Your task to perform on an android device: Go to Google maps Image 0: 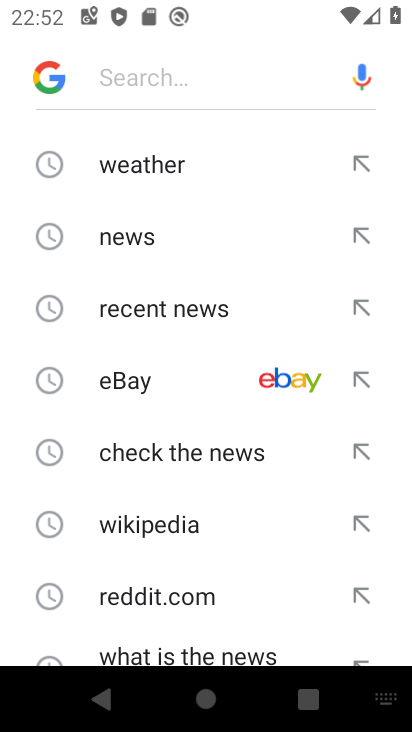
Step 0: press home button
Your task to perform on an android device: Go to Google maps Image 1: 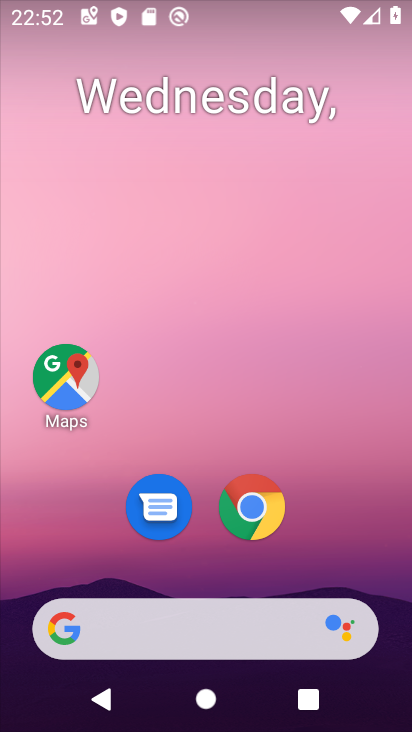
Step 1: click (263, 505)
Your task to perform on an android device: Go to Google maps Image 2: 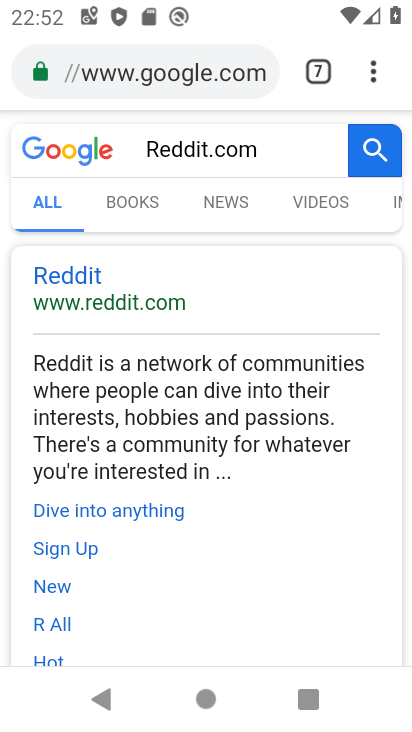
Step 2: press home button
Your task to perform on an android device: Go to Google maps Image 3: 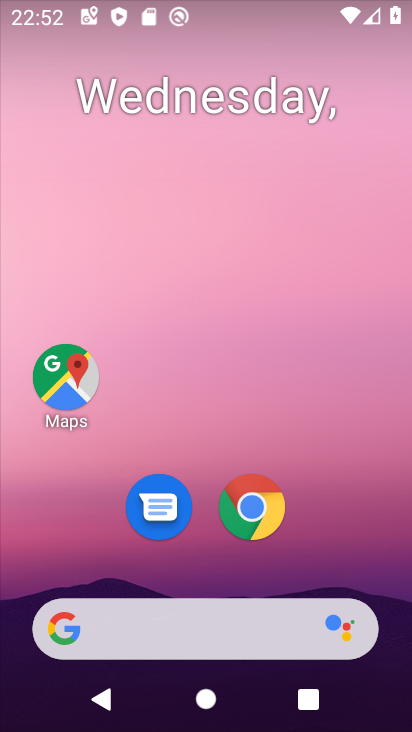
Step 3: click (61, 372)
Your task to perform on an android device: Go to Google maps Image 4: 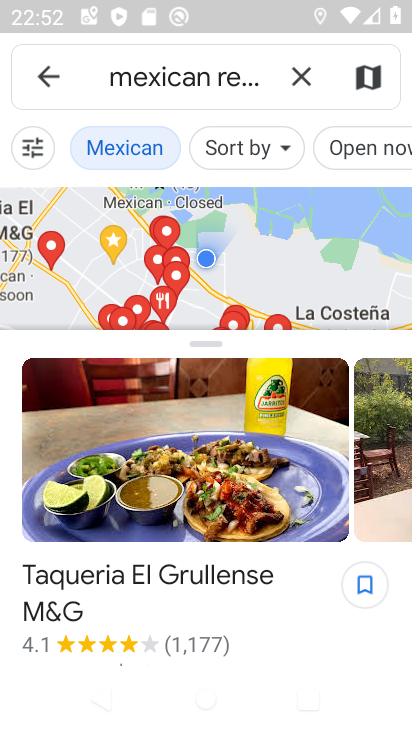
Step 4: task complete